Your task to perform on an android device: turn off javascript in the chrome app Image 0: 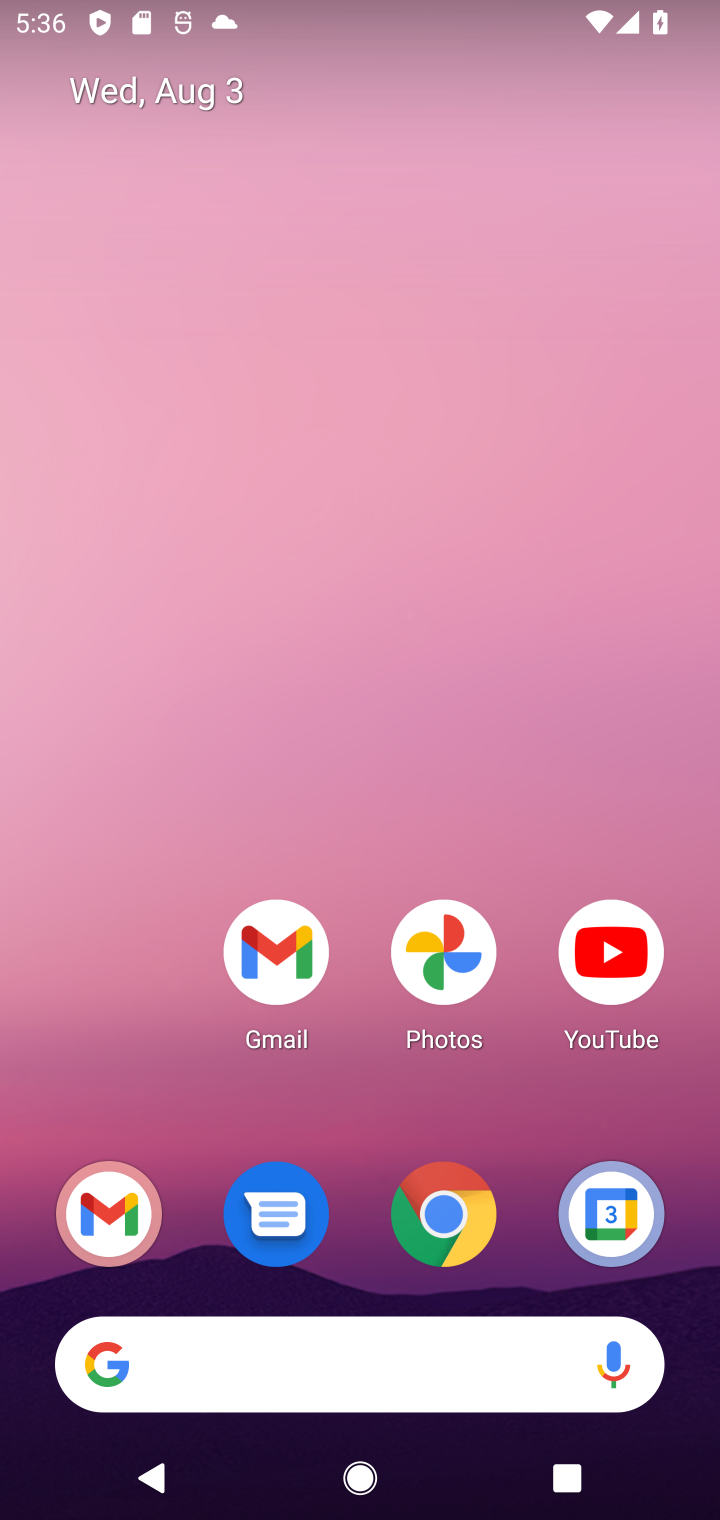
Step 0: drag from (40, 976) to (46, 121)
Your task to perform on an android device: turn off javascript in the chrome app Image 1: 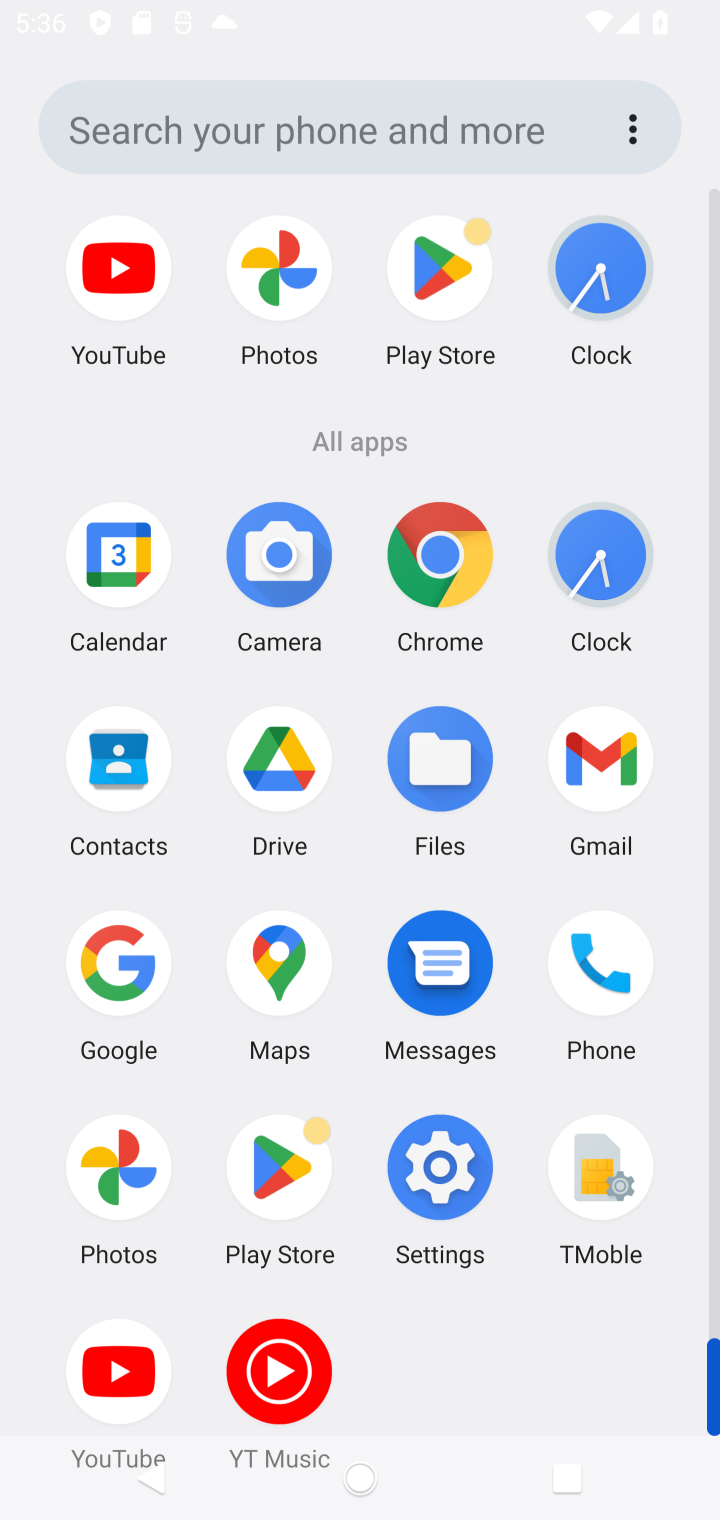
Step 1: click (419, 601)
Your task to perform on an android device: turn off javascript in the chrome app Image 2: 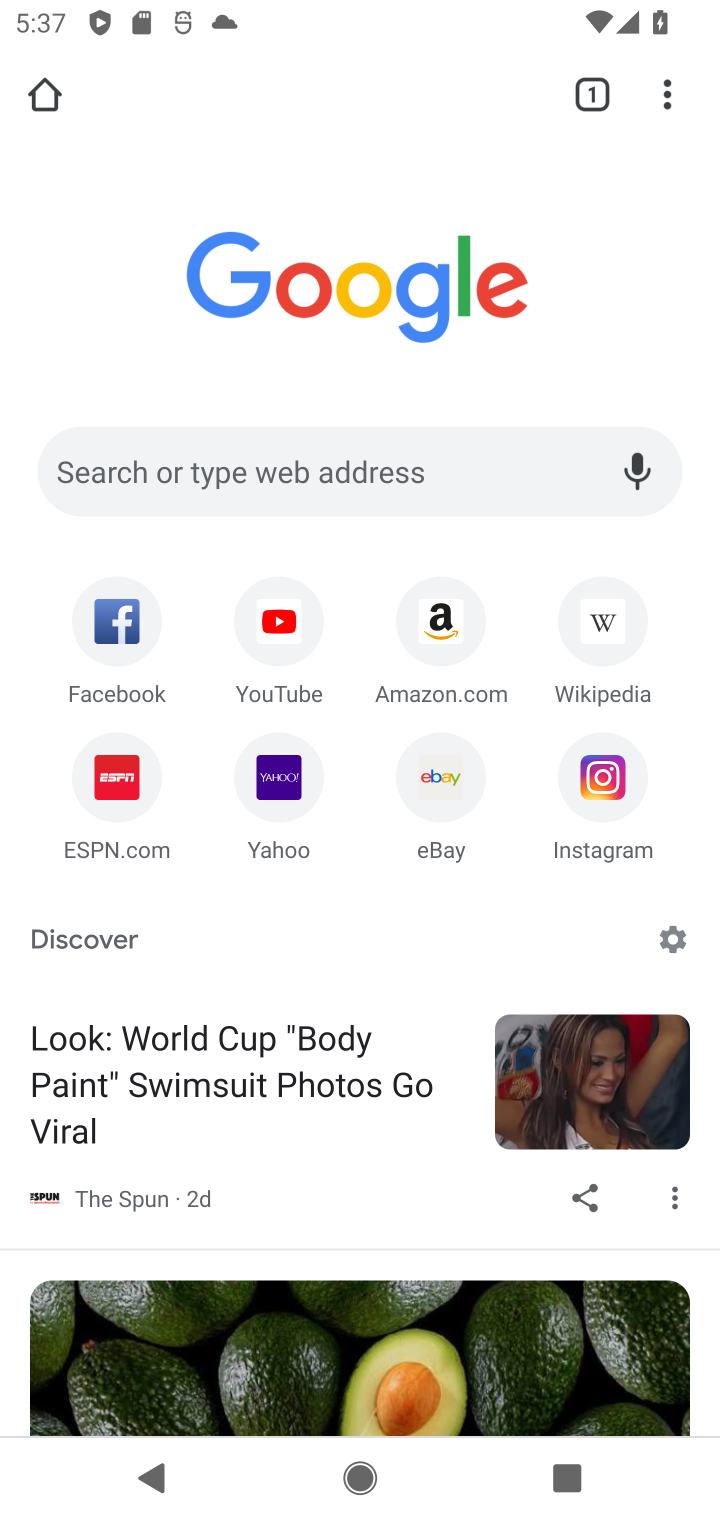
Step 2: drag from (666, 100) to (418, 896)
Your task to perform on an android device: turn off javascript in the chrome app Image 3: 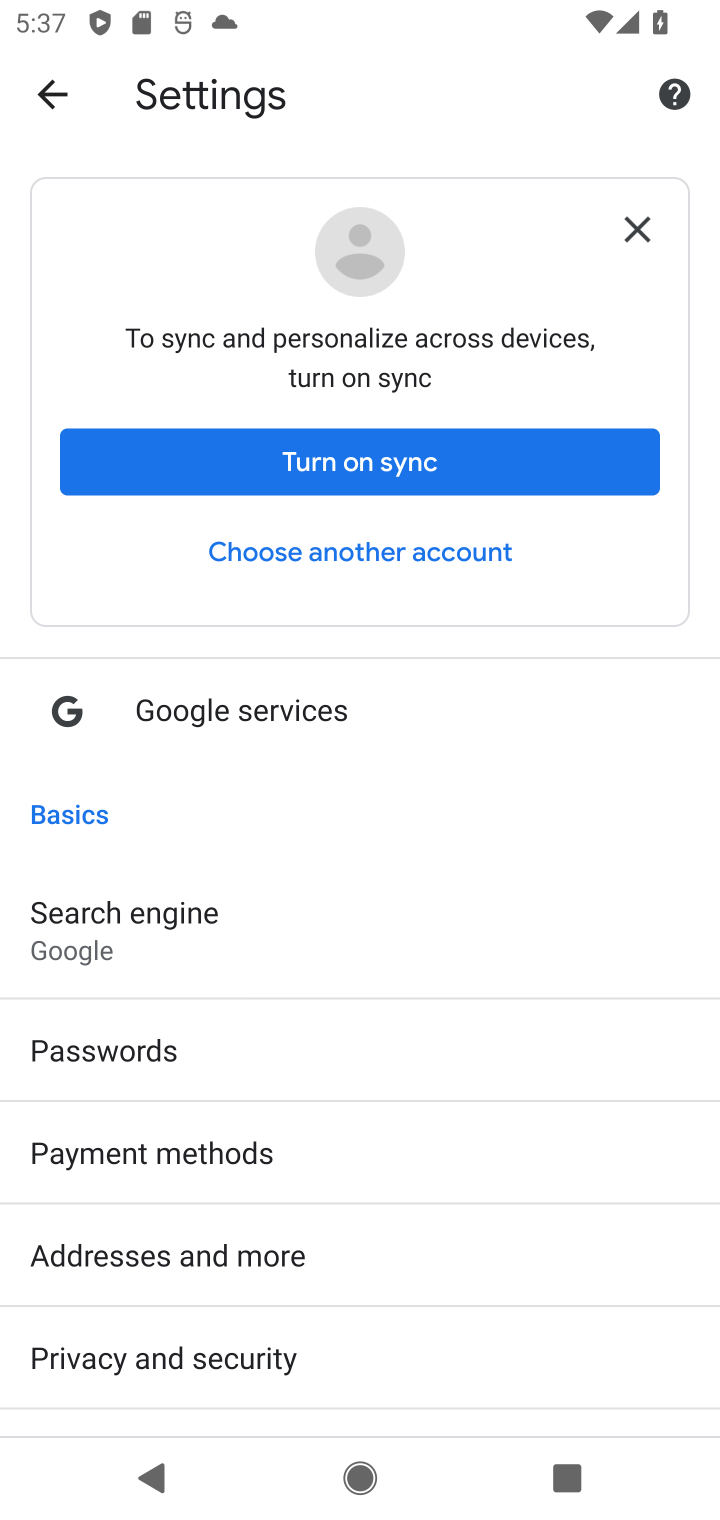
Step 3: drag from (216, 1240) to (343, 432)
Your task to perform on an android device: turn off javascript in the chrome app Image 4: 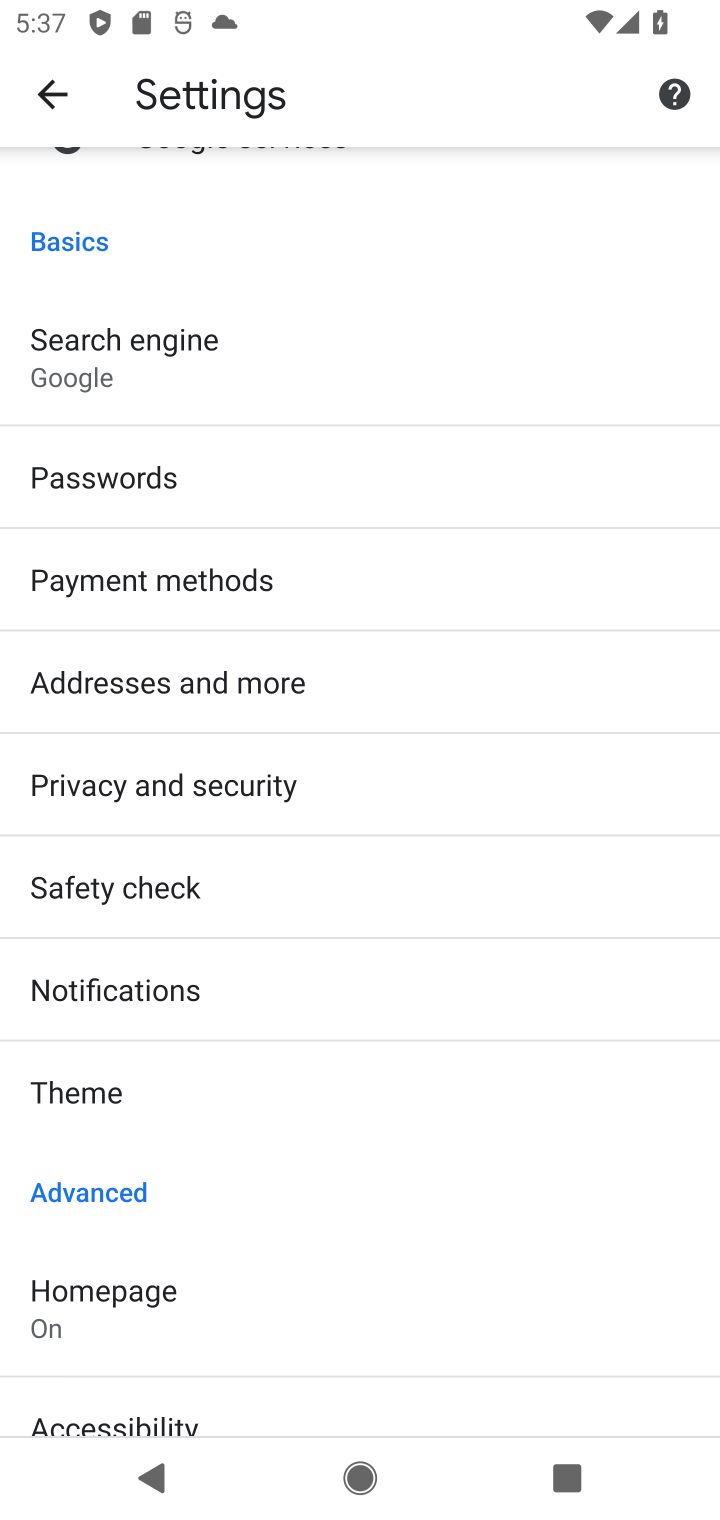
Step 4: drag from (178, 1185) to (244, 281)
Your task to perform on an android device: turn off javascript in the chrome app Image 5: 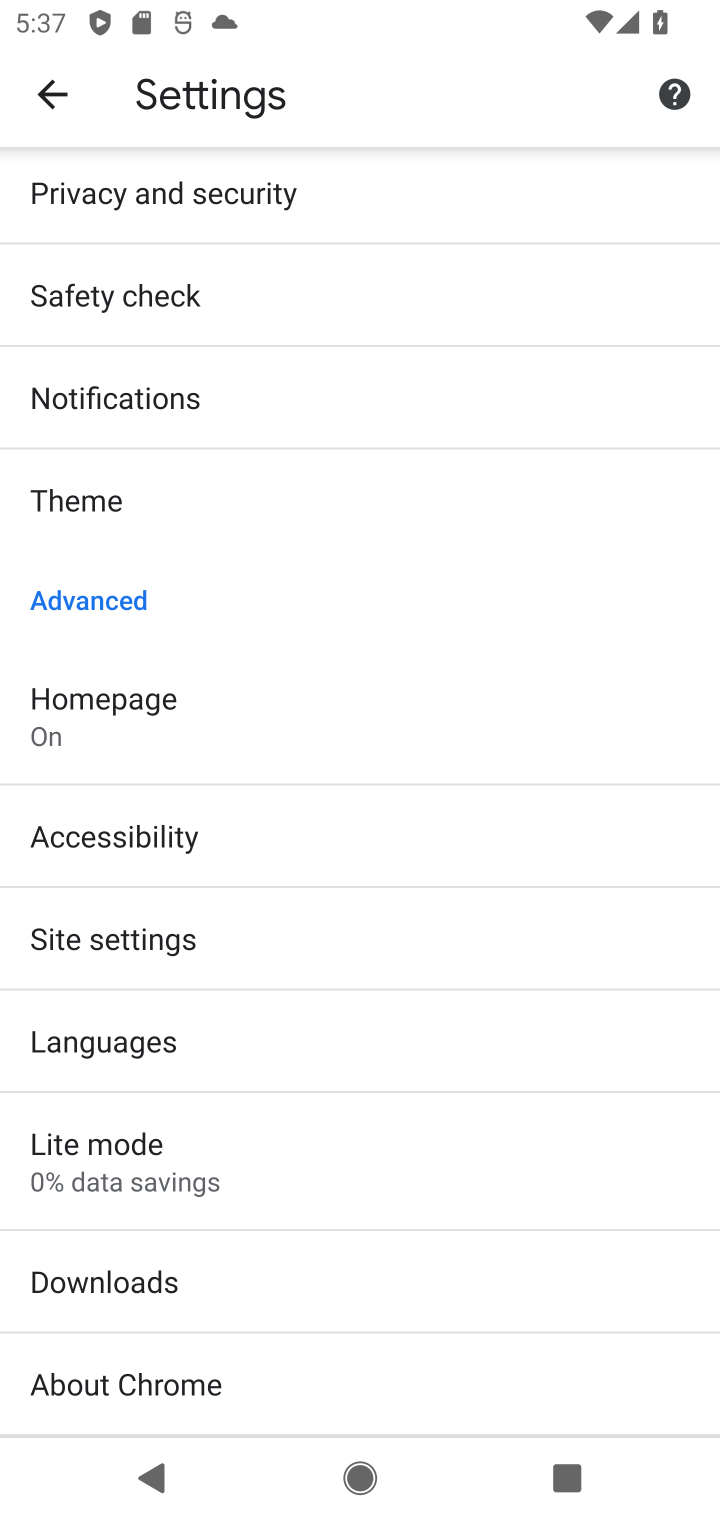
Step 5: click (219, 941)
Your task to perform on an android device: turn off javascript in the chrome app Image 6: 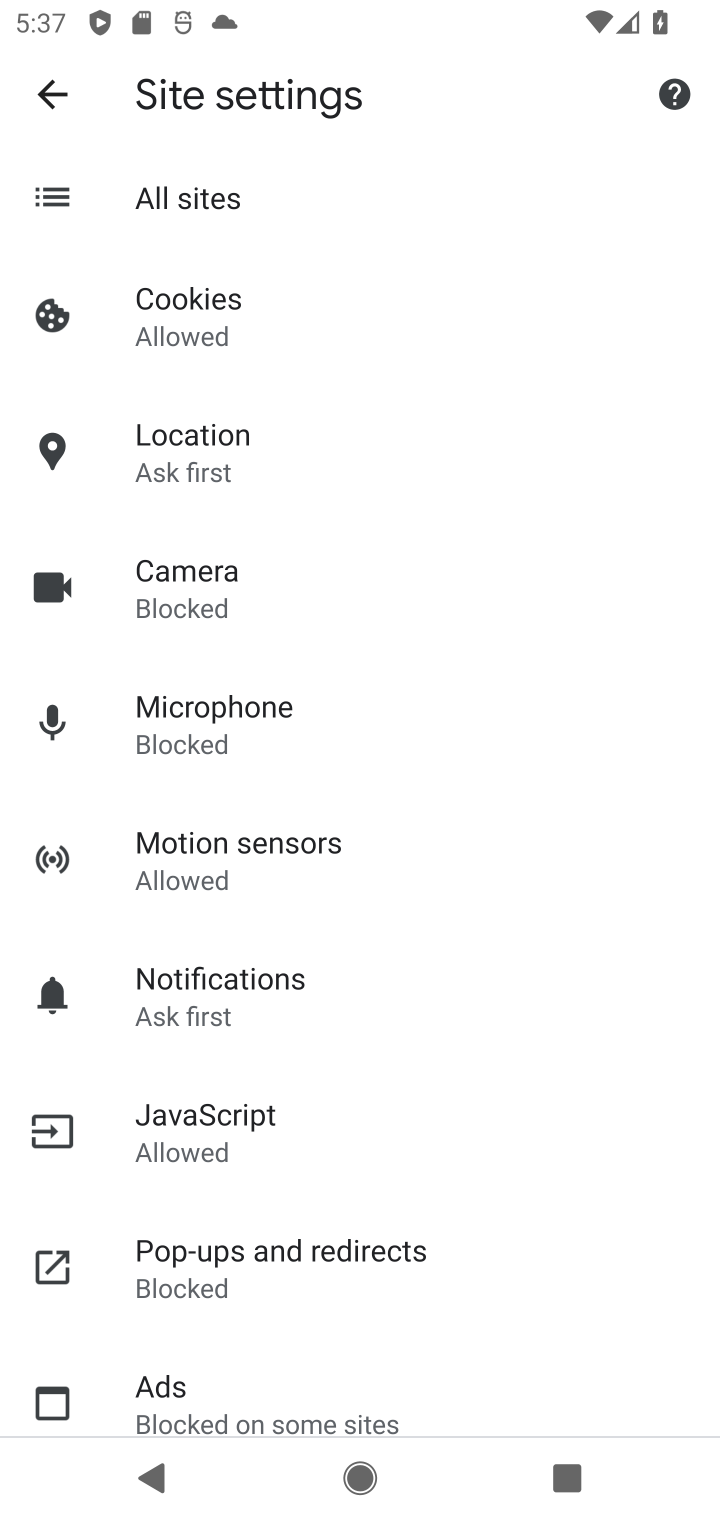
Step 6: click (228, 1122)
Your task to perform on an android device: turn off javascript in the chrome app Image 7: 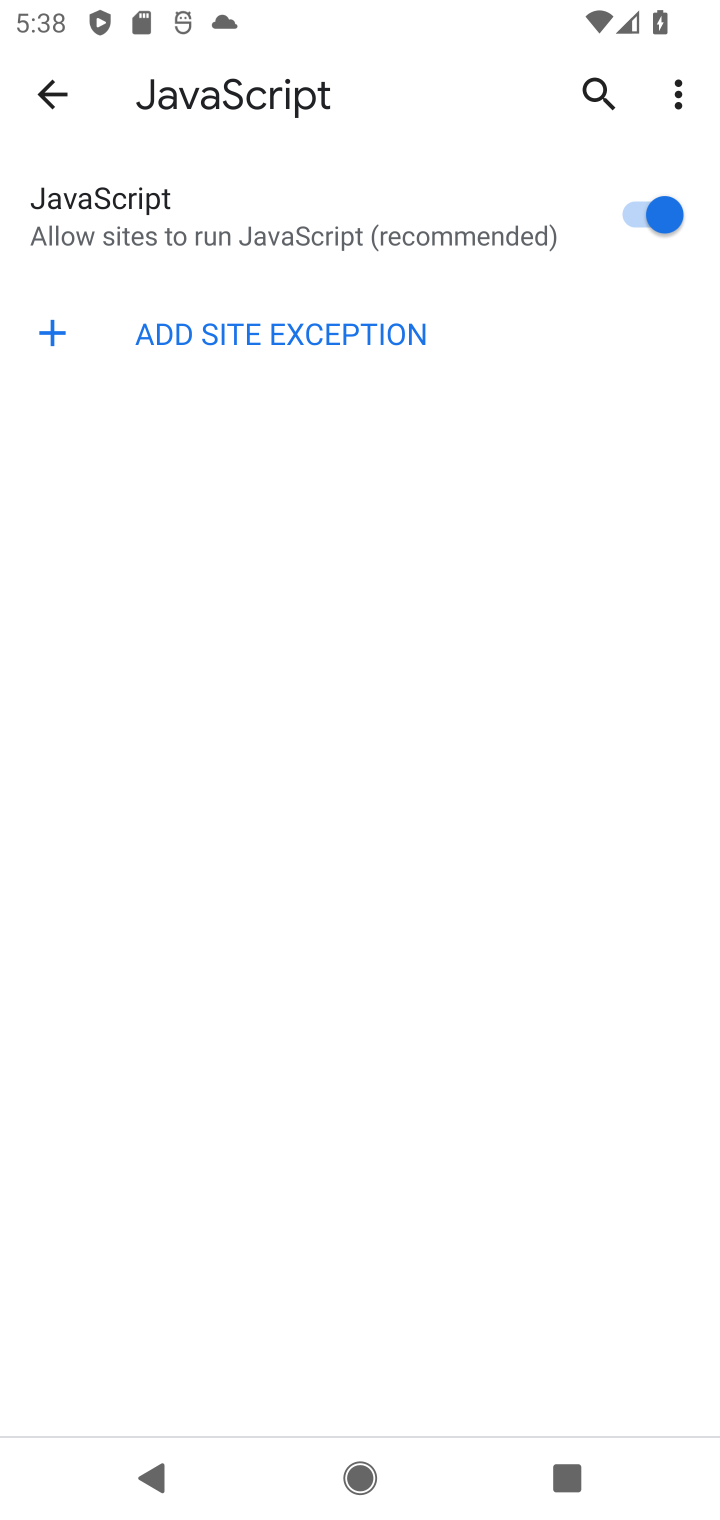
Step 7: click (660, 205)
Your task to perform on an android device: turn off javascript in the chrome app Image 8: 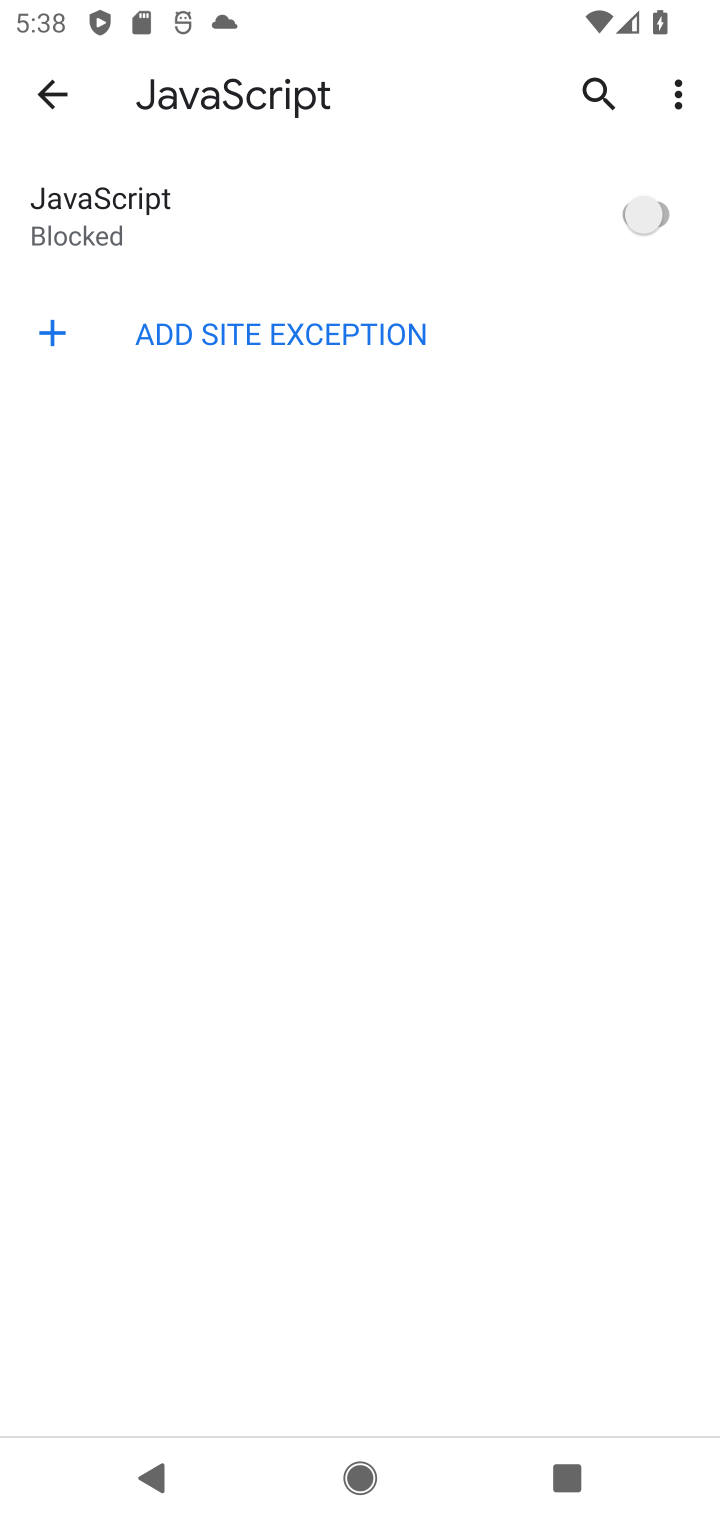
Step 8: task complete